Your task to perform on an android device: move a message to another label in the gmail app Image 0: 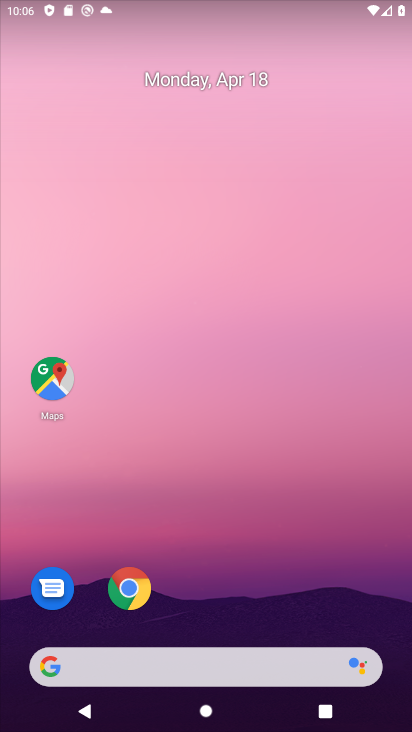
Step 0: drag from (290, 512) to (256, 15)
Your task to perform on an android device: move a message to another label in the gmail app Image 1: 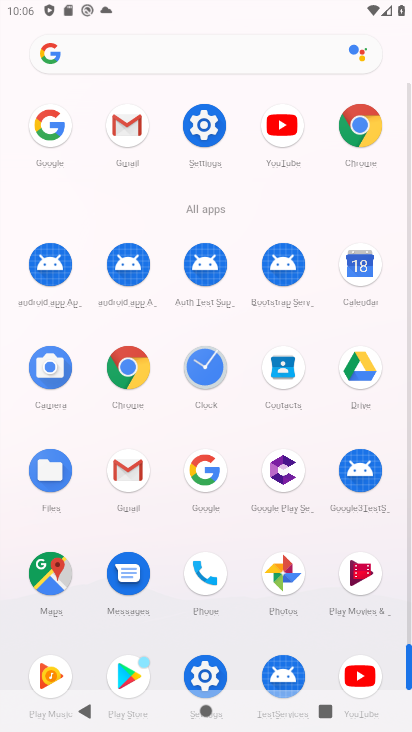
Step 1: click (125, 473)
Your task to perform on an android device: move a message to another label in the gmail app Image 2: 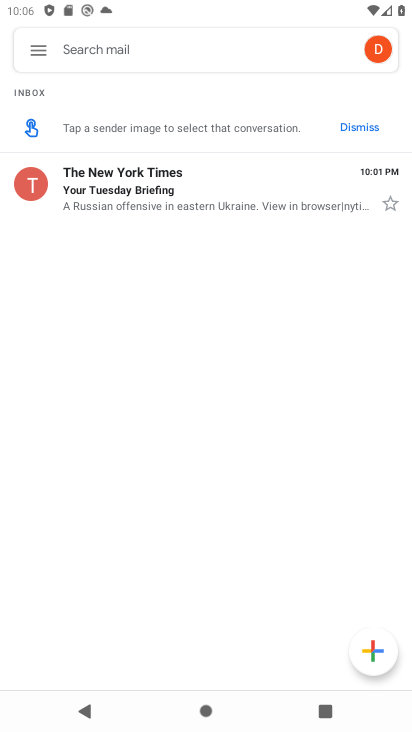
Step 2: click (202, 187)
Your task to perform on an android device: move a message to another label in the gmail app Image 3: 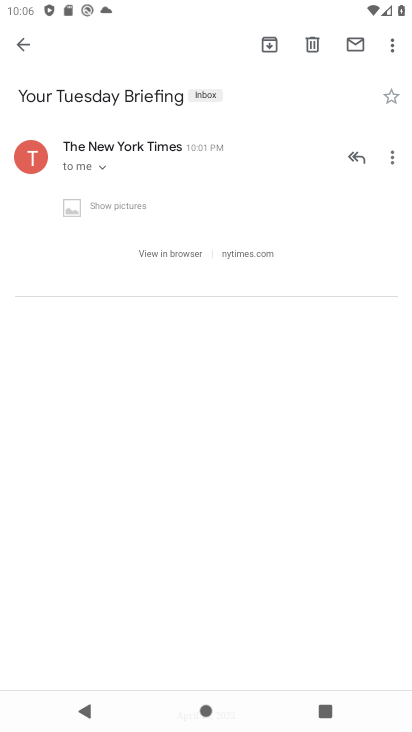
Step 3: click (389, 46)
Your task to perform on an android device: move a message to another label in the gmail app Image 4: 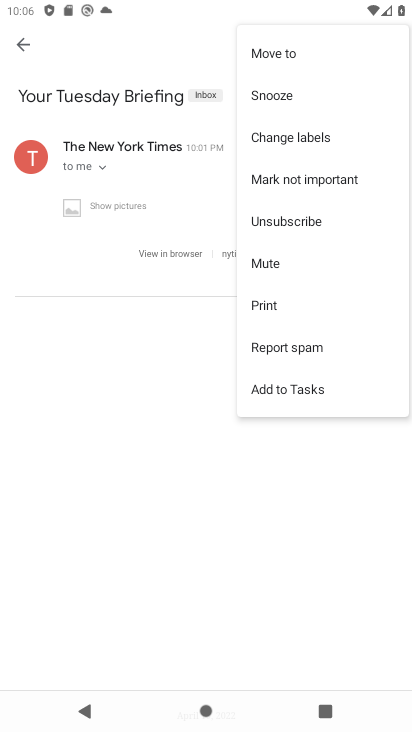
Step 4: click (314, 128)
Your task to perform on an android device: move a message to another label in the gmail app Image 5: 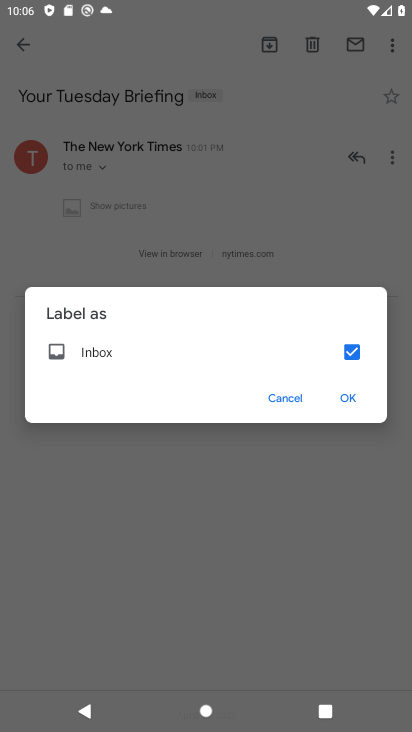
Step 5: click (346, 351)
Your task to perform on an android device: move a message to another label in the gmail app Image 6: 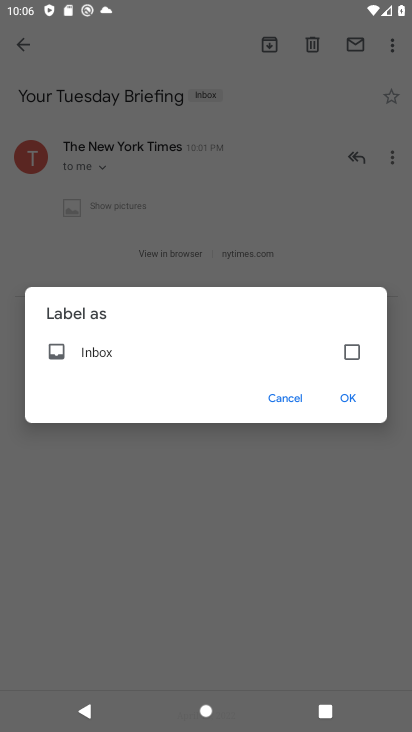
Step 6: click (355, 396)
Your task to perform on an android device: move a message to another label in the gmail app Image 7: 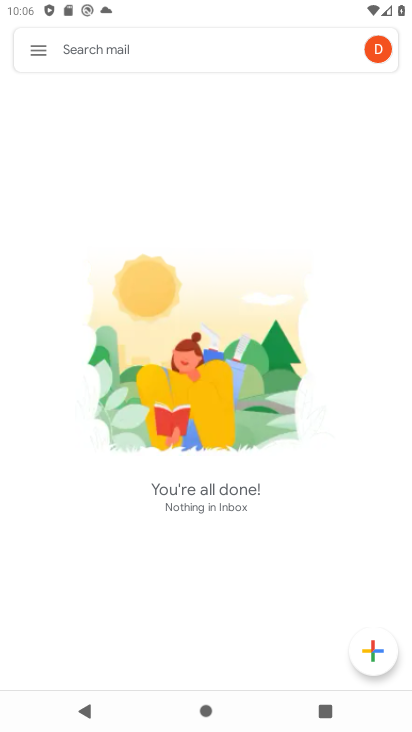
Step 7: task complete